Your task to perform on an android device: Go to internet settings Image 0: 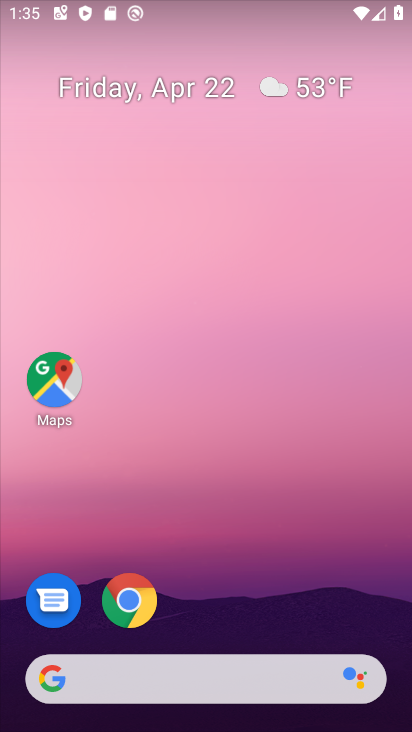
Step 0: drag from (198, 456) to (171, 150)
Your task to perform on an android device: Go to internet settings Image 1: 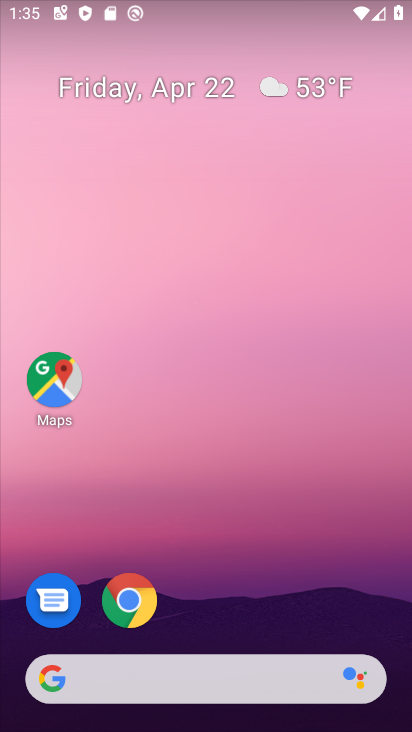
Step 1: drag from (223, 724) to (186, 97)
Your task to perform on an android device: Go to internet settings Image 2: 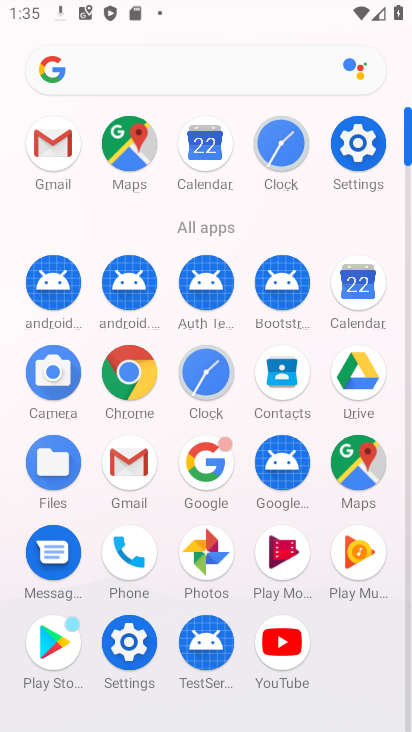
Step 2: click (352, 151)
Your task to perform on an android device: Go to internet settings Image 3: 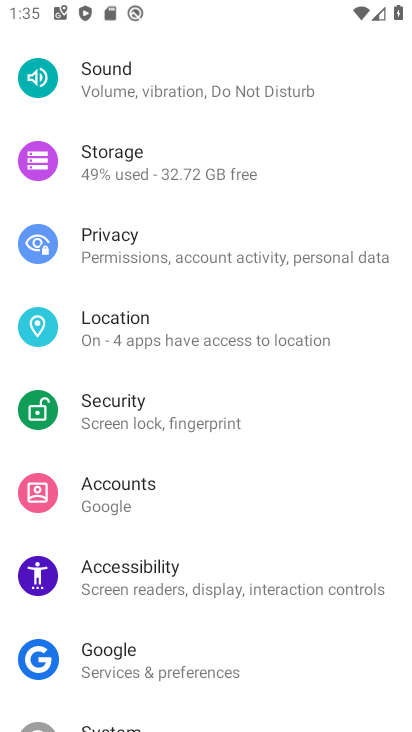
Step 3: drag from (212, 136) to (193, 593)
Your task to perform on an android device: Go to internet settings Image 4: 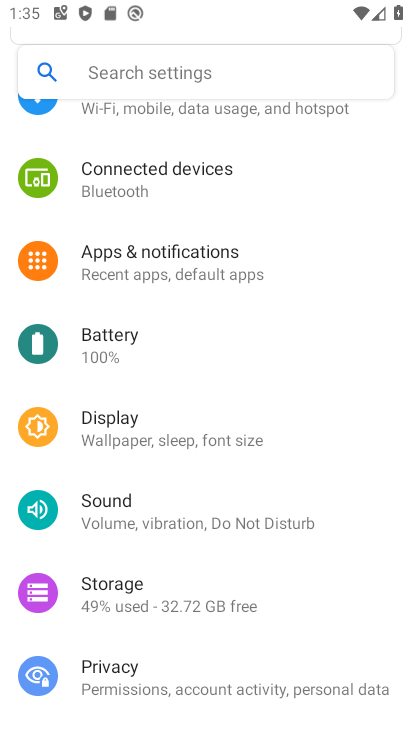
Step 4: drag from (200, 161) to (206, 570)
Your task to perform on an android device: Go to internet settings Image 5: 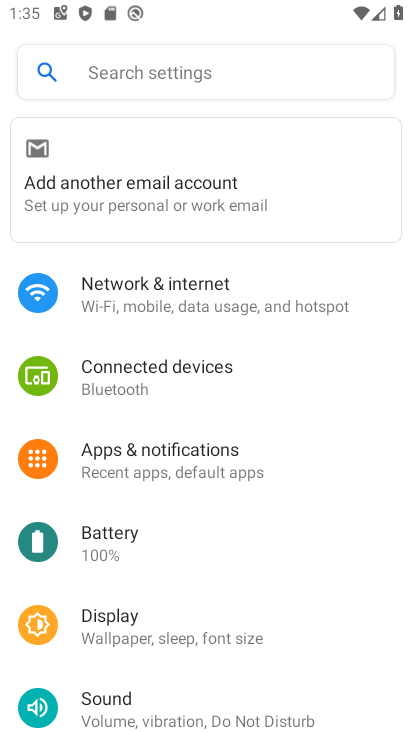
Step 5: click (170, 297)
Your task to perform on an android device: Go to internet settings Image 6: 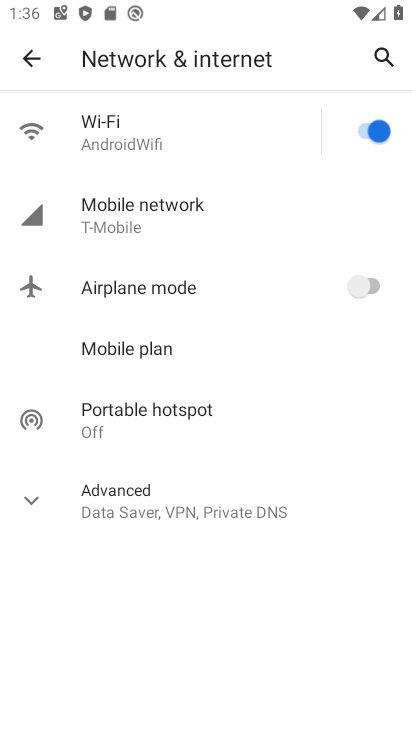
Step 6: task complete